Your task to perform on an android device: delete the emails in spam in the gmail app Image 0: 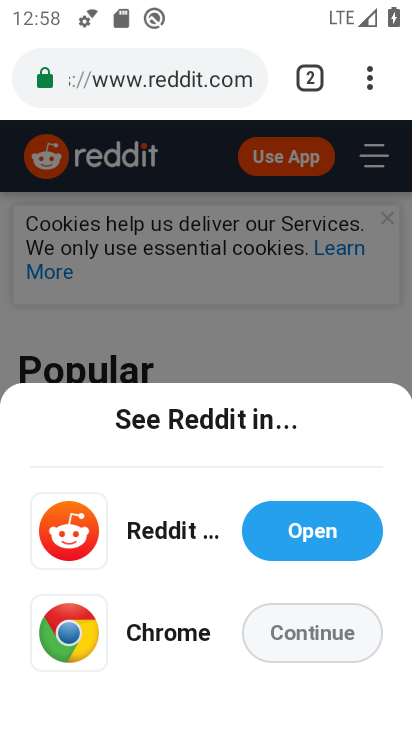
Step 0: press home button
Your task to perform on an android device: delete the emails in spam in the gmail app Image 1: 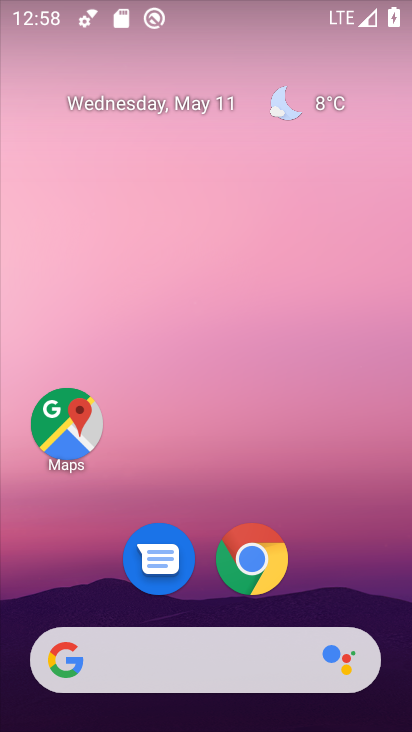
Step 1: drag from (203, 726) to (204, 99)
Your task to perform on an android device: delete the emails in spam in the gmail app Image 2: 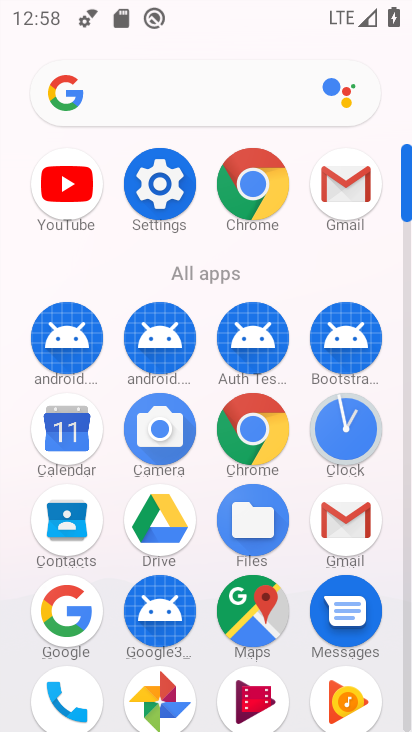
Step 2: click (338, 526)
Your task to perform on an android device: delete the emails in spam in the gmail app Image 3: 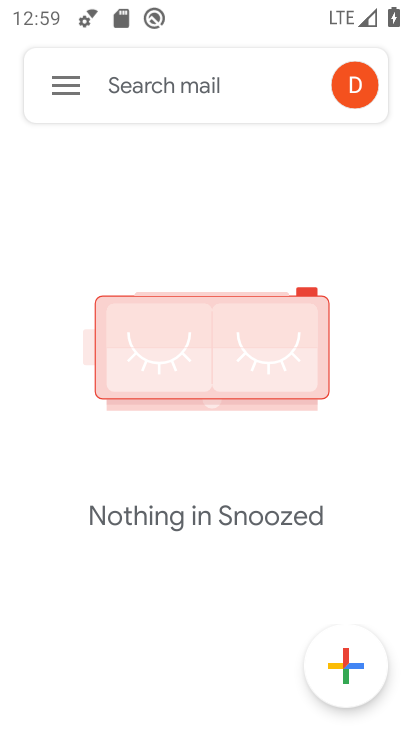
Step 3: click (57, 87)
Your task to perform on an android device: delete the emails in spam in the gmail app Image 4: 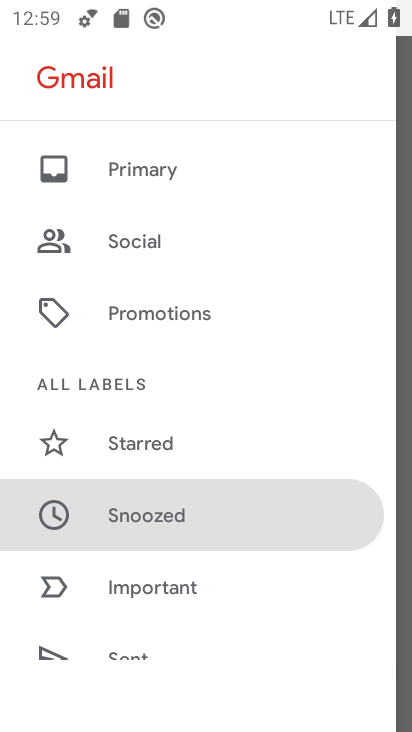
Step 4: drag from (184, 638) to (198, 227)
Your task to perform on an android device: delete the emails in spam in the gmail app Image 5: 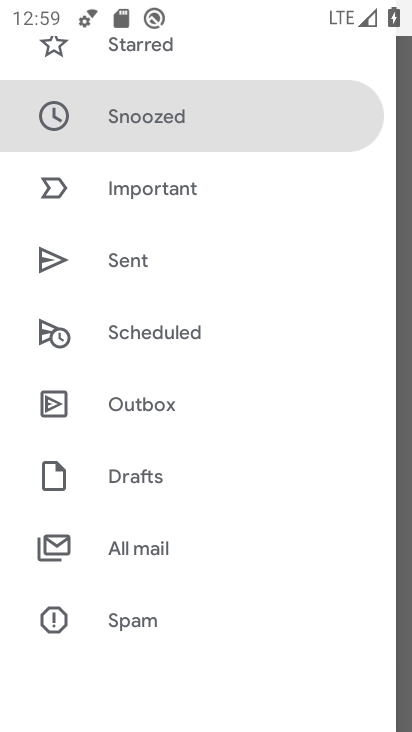
Step 5: drag from (163, 610) to (222, 156)
Your task to perform on an android device: delete the emails in spam in the gmail app Image 6: 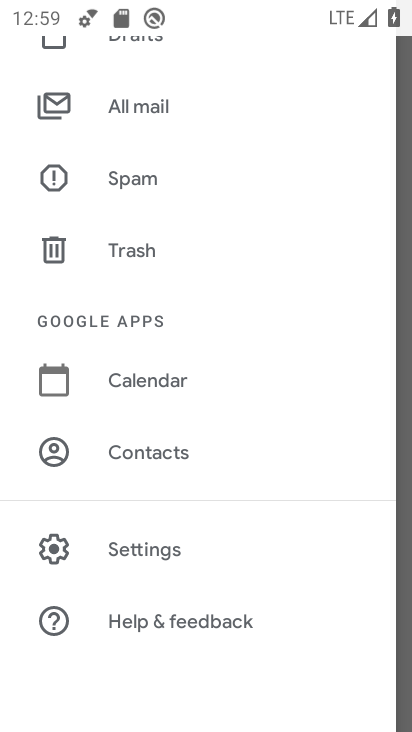
Step 6: click (145, 180)
Your task to perform on an android device: delete the emails in spam in the gmail app Image 7: 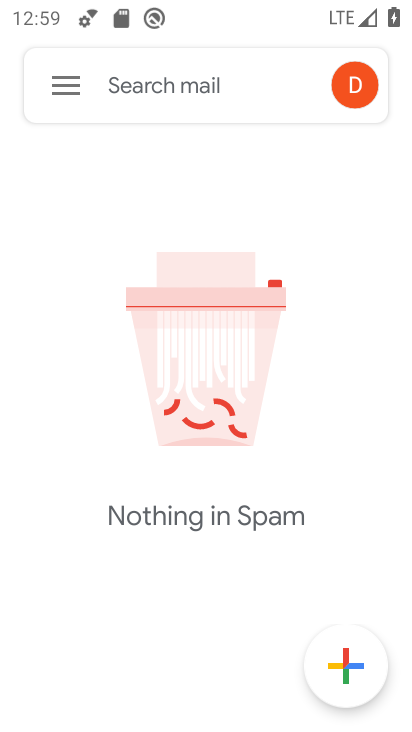
Step 7: task complete